Your task to perform on an android device: turn on bluetooth scan Image 0: 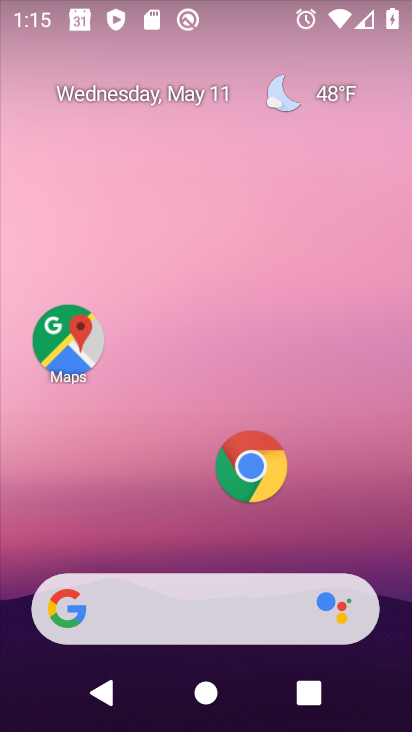
Step 0: drag from (88, 563) to (249, 15)
Your task to perform on an android device: turn on bluetooth scan Image 1: 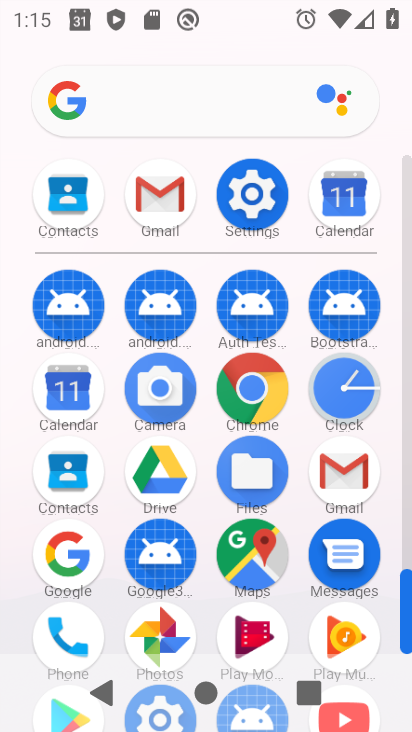
Step 1: click (258, 185)
Your task to perform on an android device: turn on bluetooth scan Image 2: 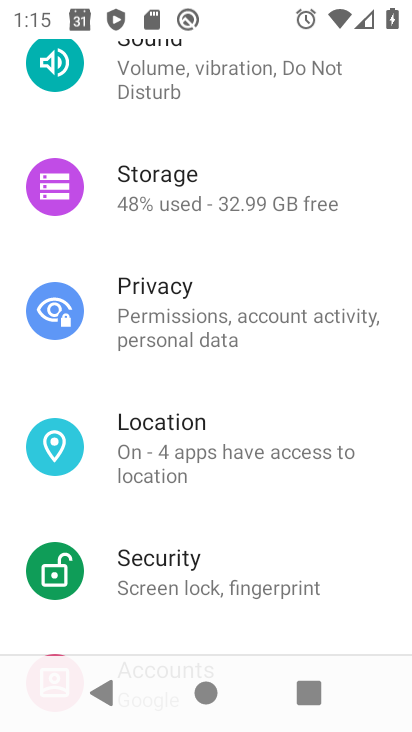
Step 2: drag from (239, 164) to (215, 595)
Your task to perform on an android device: turn on bluetooth scan Image 3: 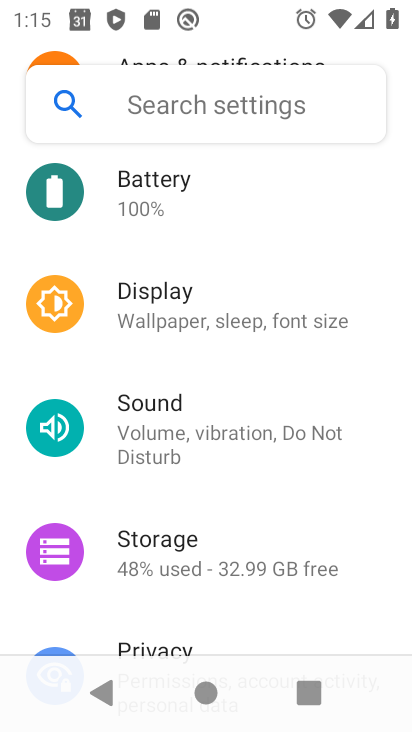
Step 3: drag from (193, 234) to (195, 580)
Your task to perform on an android device: turn on bluetooth scan Image 4: 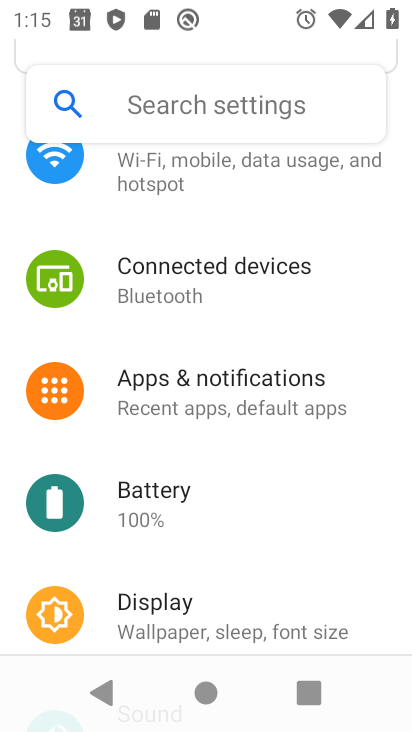
Step 4: drag from (203, 262) to (174, 592)
Your task to perform on an android device: turn on bluetooth scan Image 5: 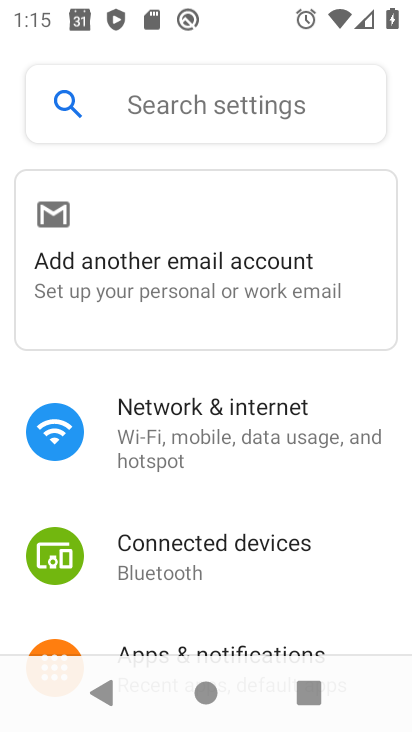
Step 5: click (175, 554)
Your task to perform on an android device: turn on bluetooth scan Image 6: 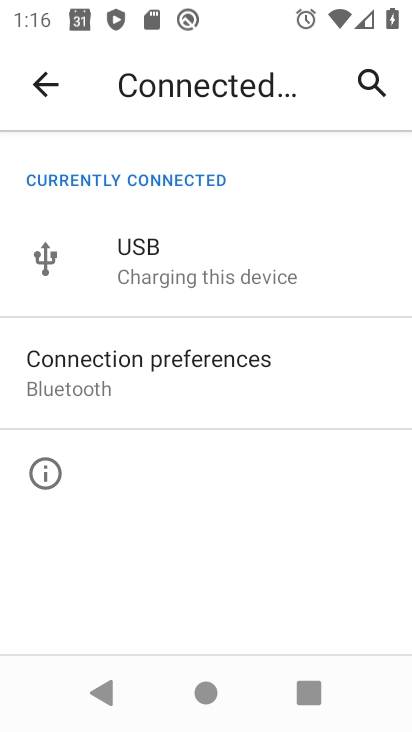
Step 6: click (74, 389)
Your task to perform on an android device: turn on bluetooth scan Image 7: 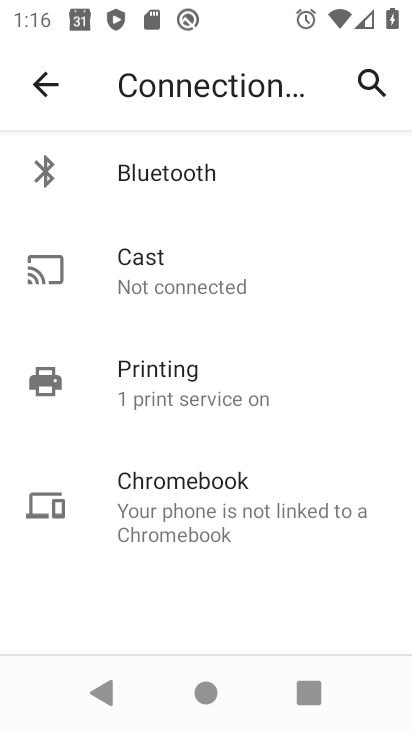
Step 7: click (184, 190)
Your task to perform on an android device: turn on bluetooth scan Image 8: 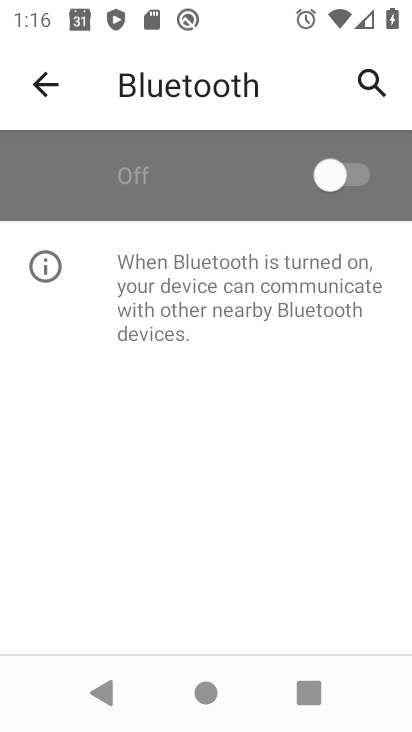
Step 8: click (332, 167)
Your task to perform on an android device: turn on bluetooth scan Image 9: 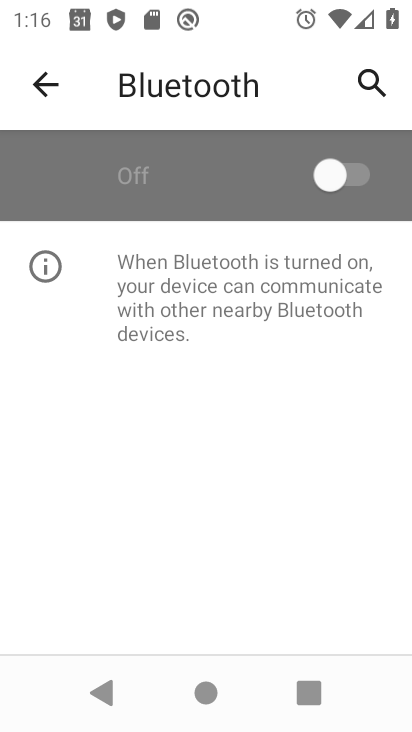
Step 9: task complete